Your task to perform on an android device: Go to battery settings Image 0: 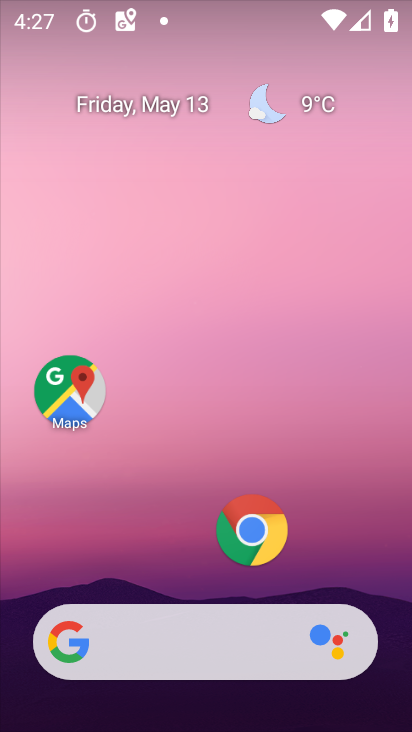
Step 0: drag from (204, 581) to (225, 41)
Your task to perform on an android device: Go to battery settings Image 1: 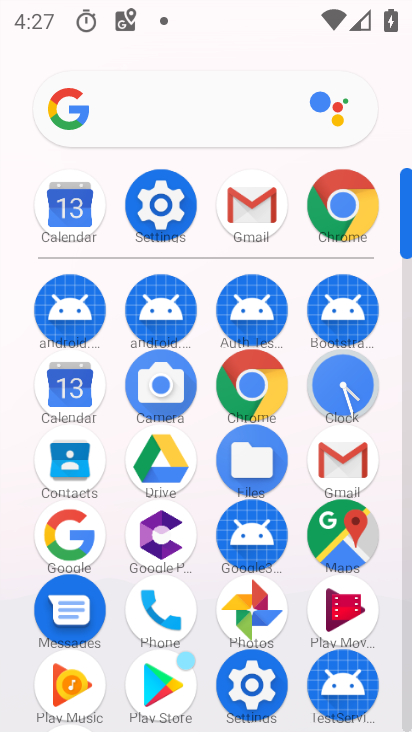
Step 1: click (155, 199)
Your task to perform on an android device: Go to battery settings Image 2: 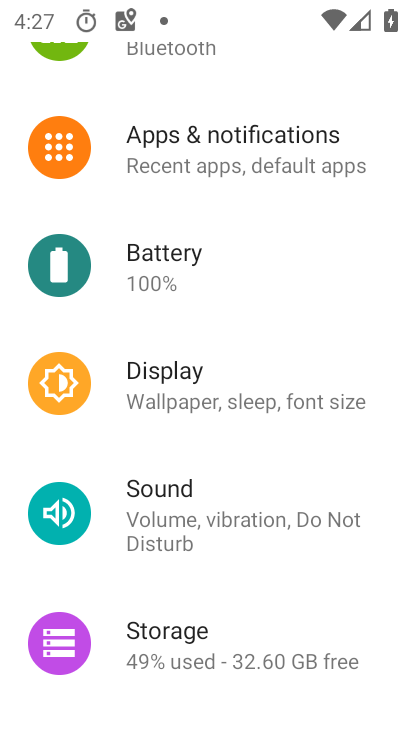
Step 2: click (198, 268)
Your task to perform on an android device: Go to battery settings Image 3: 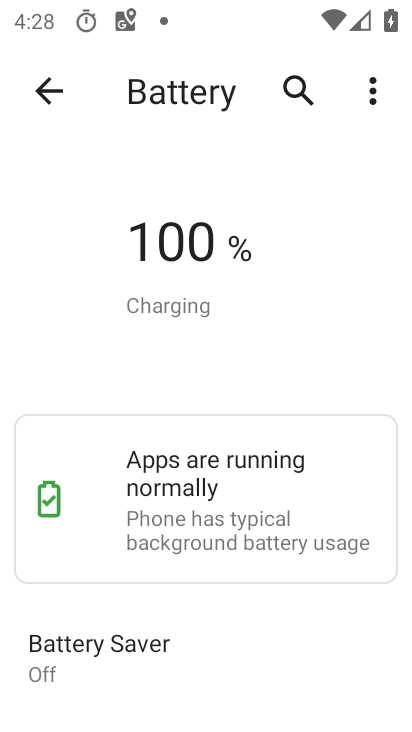
Step 3: task complete